Your task to perform on an android device: turn on the 12-hour format for clock Image 0: 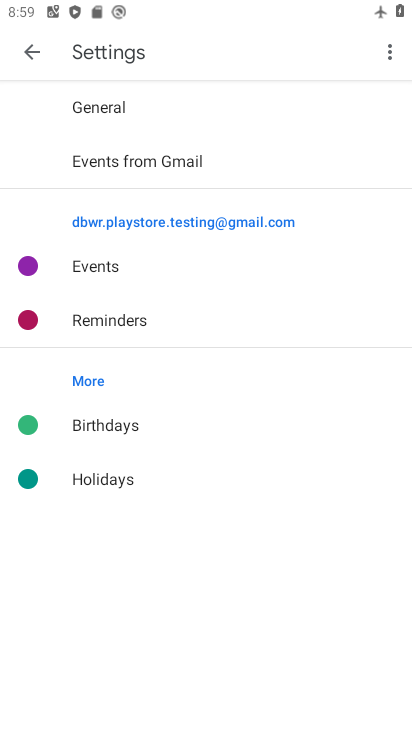
Step 0: press home button
Your task to perform on an android device: turn on the 12-hour format for clock Image 1: 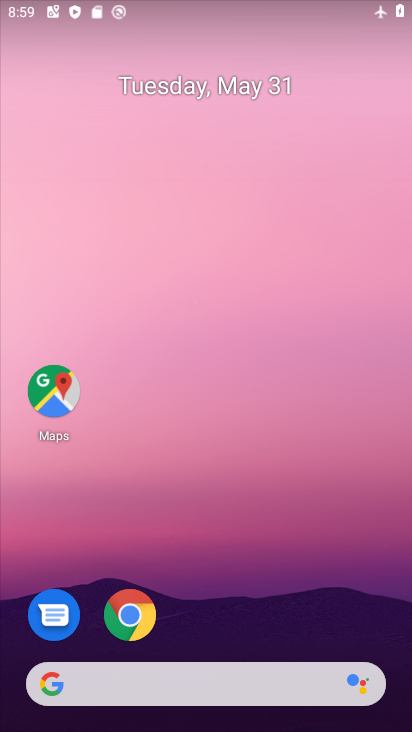
Step 1: drag from (359, 617) to (295, 270)
Your task to perform on an android device: turn on the 12-hour format for clock Image 2: 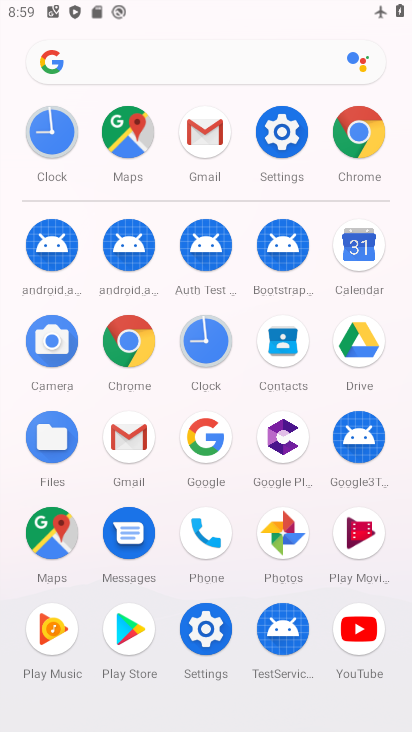
Step 2: click (206, 338)
Your task to perform on an android device: turn on the 12-hour format for clock Image 3: 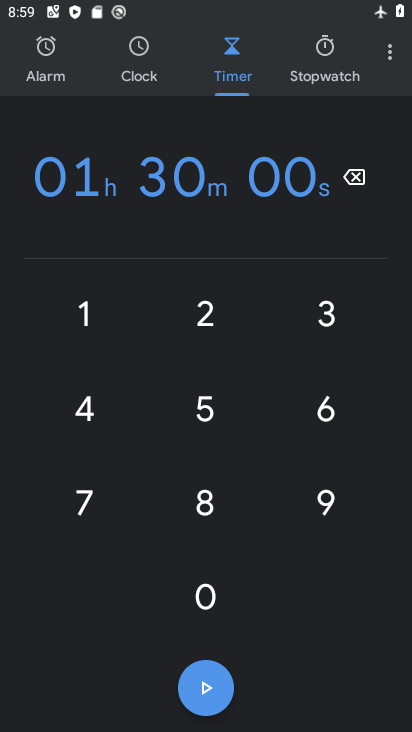
Step 3: click (387, 52)
Your task to perform on an android device: turn on the 12-hour format for clock Image 4: 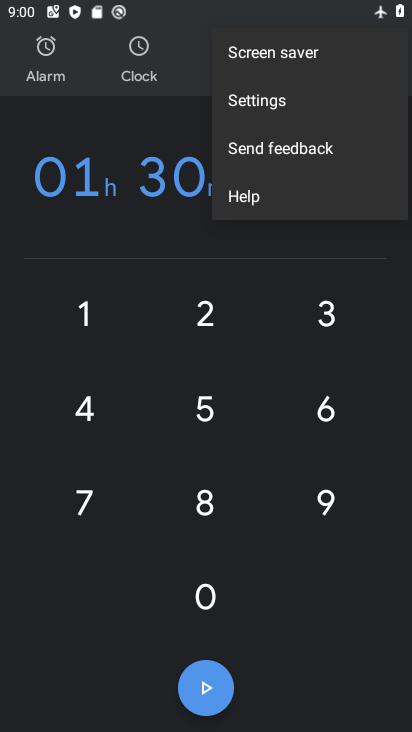
Step 4: click (267, 109)
Your task to perform on an android device: turn on the 12-hour format for clock Image 5: 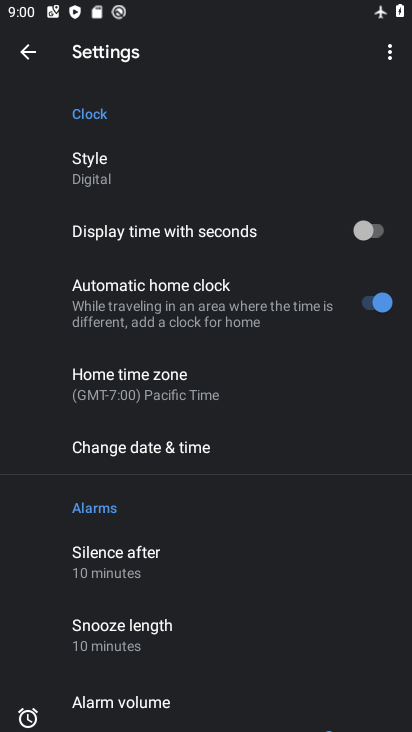
Step 5: click (151, 440)
Your task to perform on an android device: turn on the 12-hour format for clock Image 6: 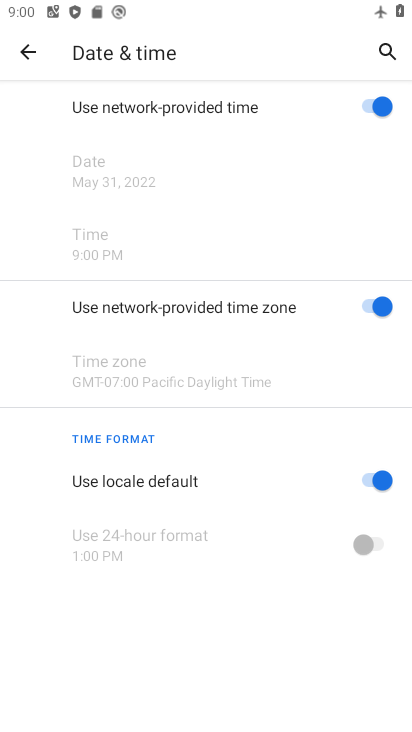
Step 6: task complete